Your task to perform on an android device: add a label to a message in the gmail app Image 0: 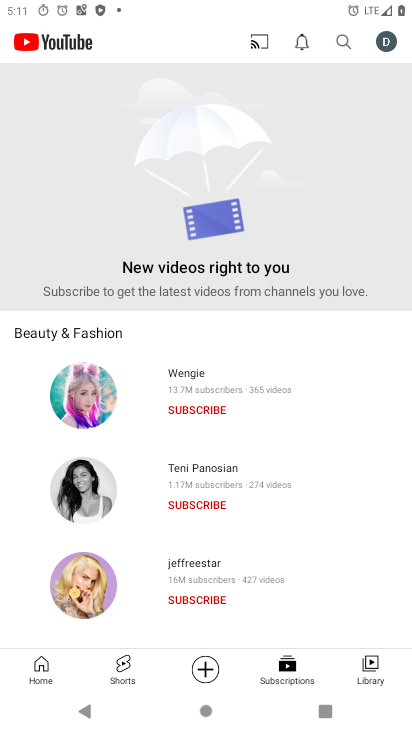
Step 0: press home button
Your task to perform on an android device: add a label to a message in the gmail app Image 1: 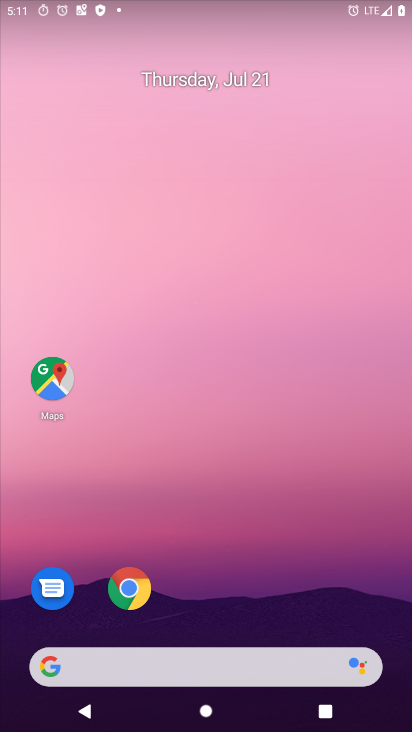
Step 1: drag from (264, 572) to (226, 88)
Your task to perform on an android device: add a label to a message in the gmail app Image 2: 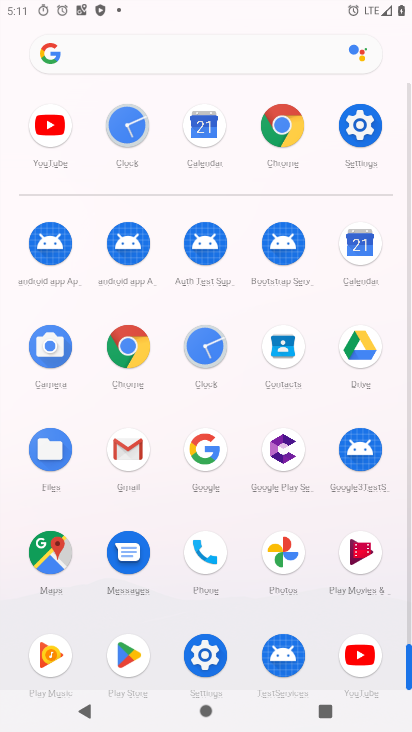
Step 2: click (131, 451)
Your task to perform on an android device: add a label to a message in the gmail app Image 3: 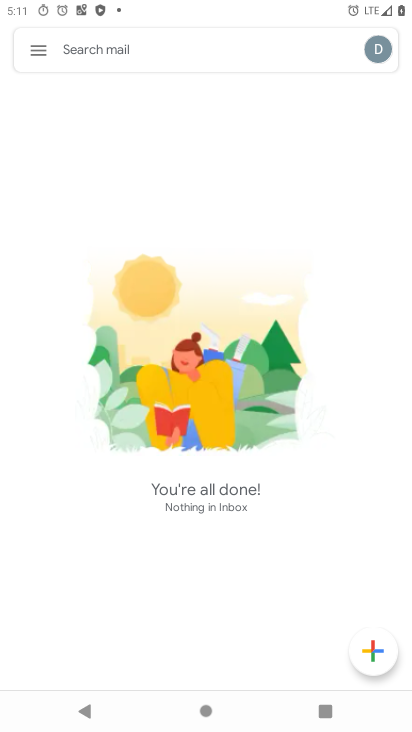
Step 3: task complete